Your task to perform on an android device: add a contact in the contacts app Image 0: 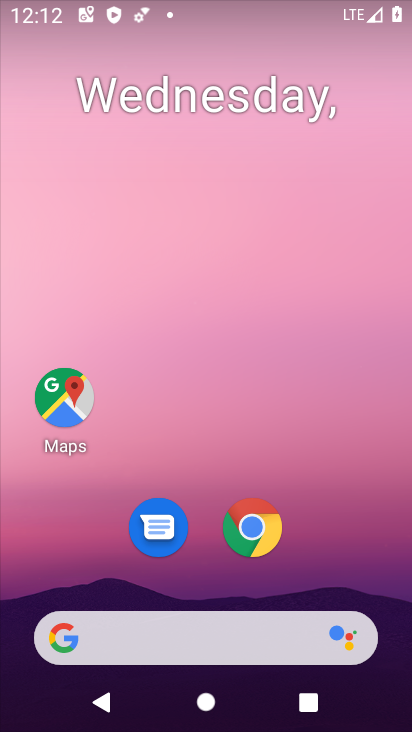
Step 0: drag from (159, 601) to (142, 2)
Your task to perform on an android device: add a contact in the contacts app Image 1: 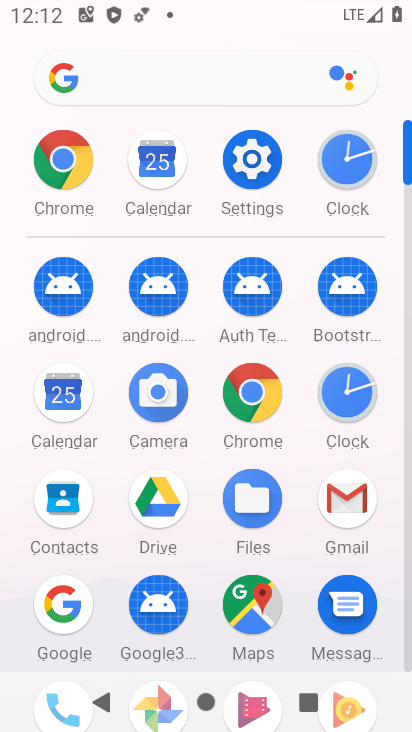
Step 1: click (52, 505)
Your task to perform on an android device: add a contact in the contacts app Image 2: 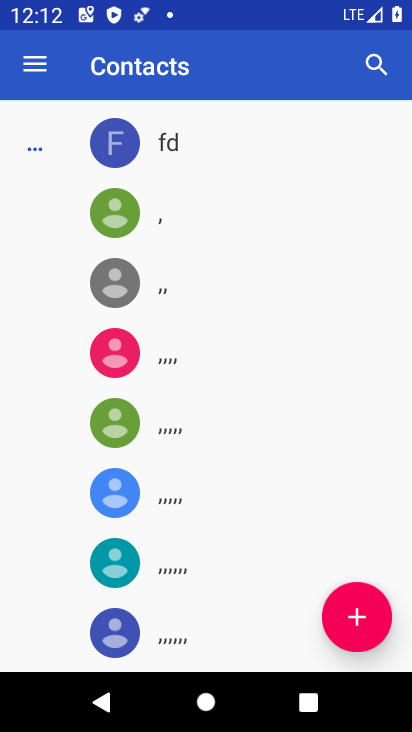
Step 2: click (343, 631)
Your task to perform on an android device: add a contact in the contacts app Image 3: 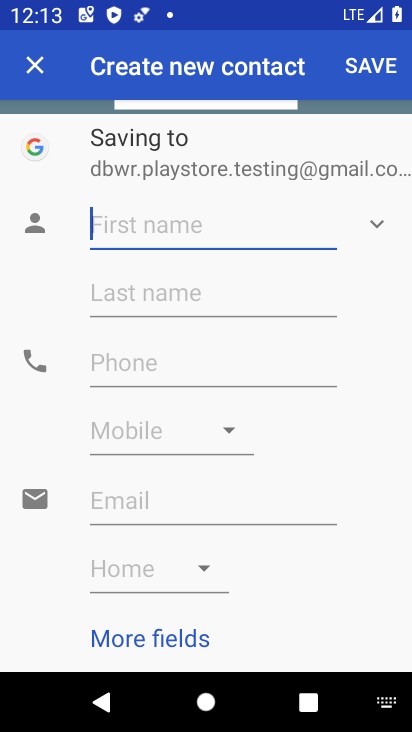
Step 3: type "ghfjjhjh"
Your task to perform on an android device: add a contact in the contacts app Image 4: 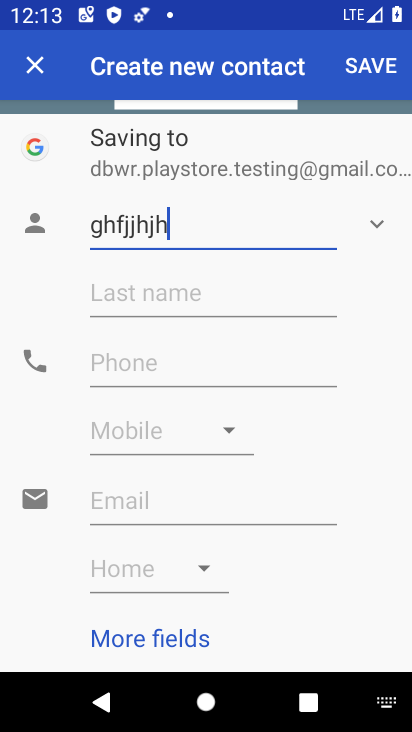
Step 4: click (225, 376)
Your task to perform on an android device: add a contact in the contacts app Image 5: 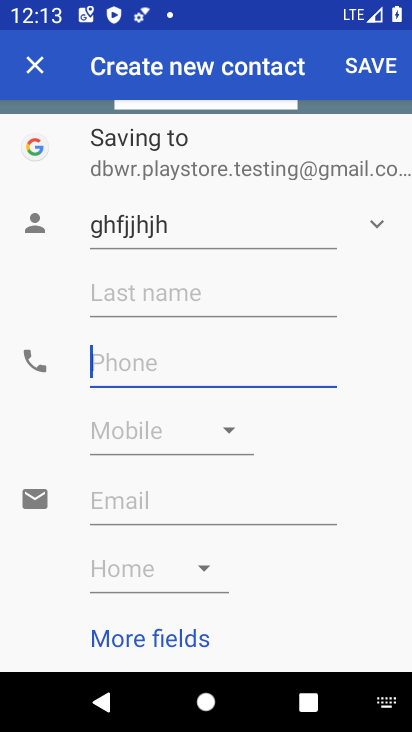
Step 5: type "98976746668"
Your task to perform on an android device: add a contact in the contacts app Image 6: 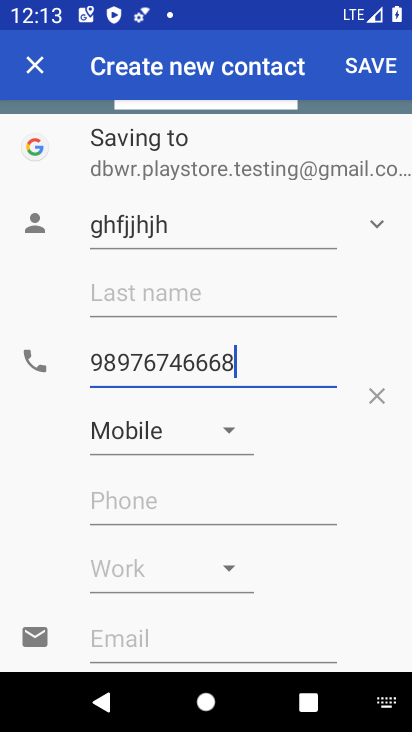
Step 6: click (380, 64)
Your task to perform on an android device: add a contact in the contacts app Image 7: 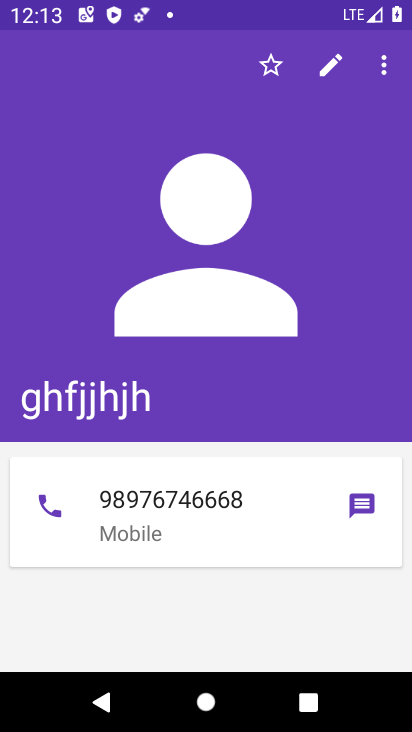
Step 7: task complete